Your task to perform on an android device: check the backup settings in the google photos Image 0: 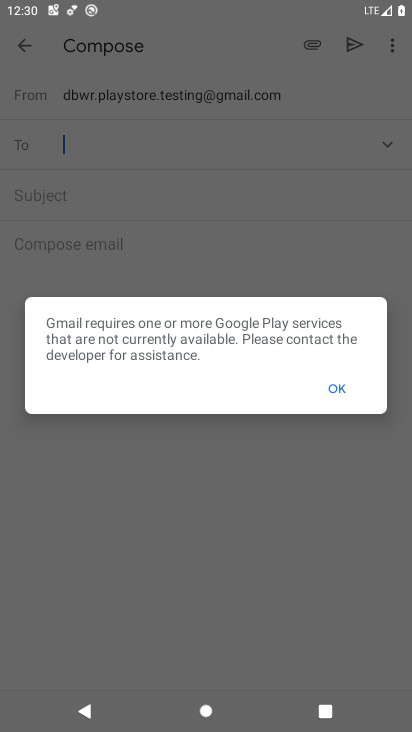
Step 0: press home button
Your task to perform on an android device: check the backup settings in the google photos Image 1: 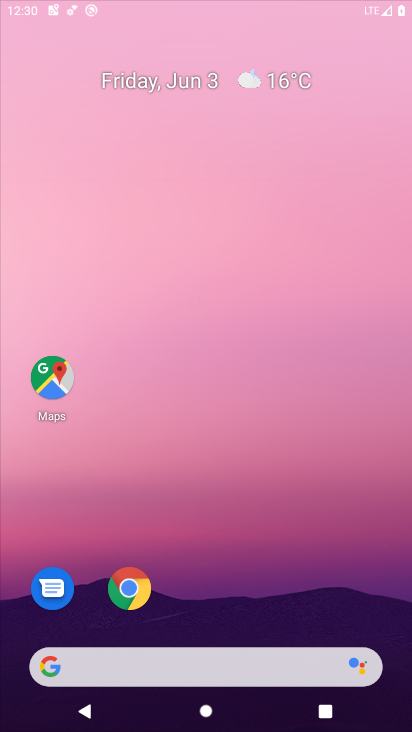
Step 1: drag from (253, 576) to (323, 65)
Your task to perform on an android device: check the backup settings in the google photos Image 2: 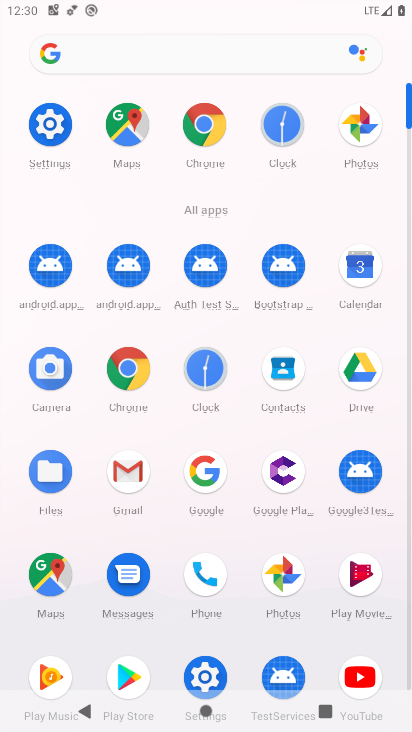
Step 2: drag from (42, 119) to (169, 18)
Your task to perform on an android device: check the backup settings in the google photos Image 3: 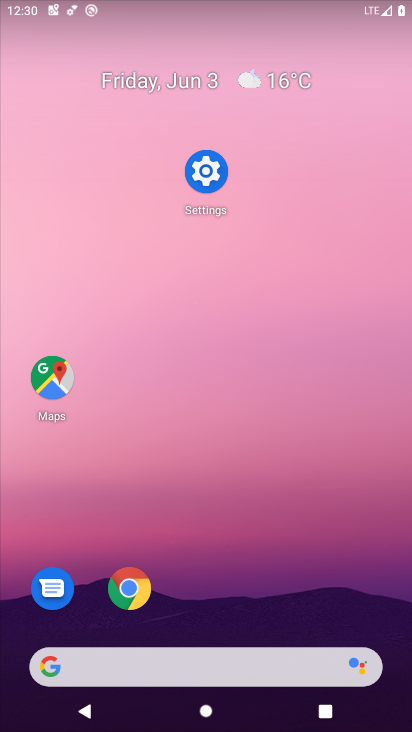
Step 3: drag from (242, 590) to (281, 30)
Your task to perform on an android device: check the backup settings in the google photos Image 4: 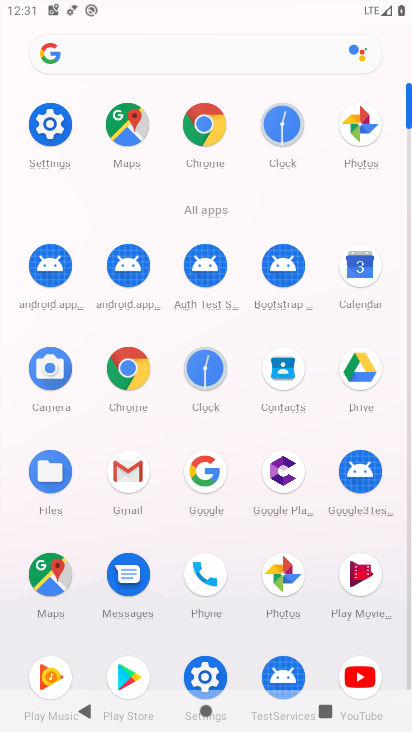
Step 4: drag from (291, 558) to (208, 477)
Your task to perform on an android device: check the backup settings in the google photos Image 5: 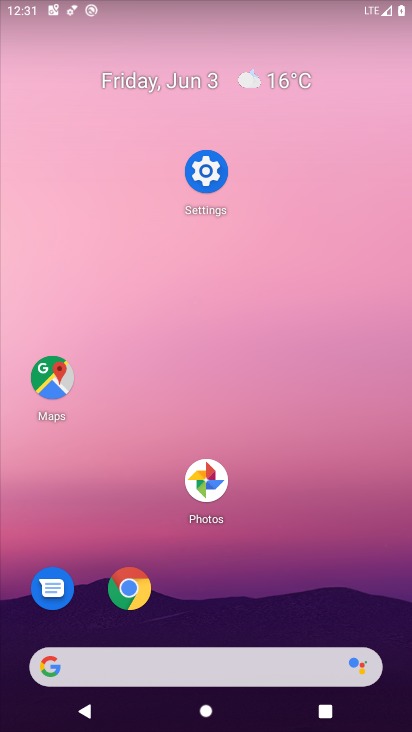
Step 5: click (205, 475)
Your task to perform on an android device: check the backup settings in the google photos Image 6: 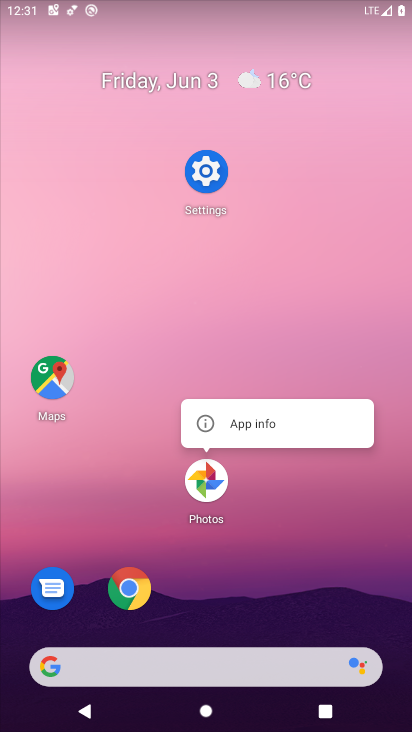
Step 6: click (279, 427)
Your task to perform on an android device: check the backup settings in the google photos Image 7: 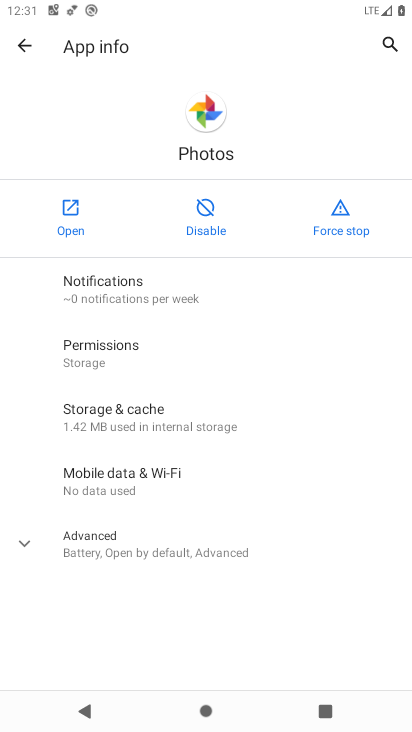
Step 7: click (96, 188)
Your task to perform on an android device: check the backup settings in the google photos Image 8: 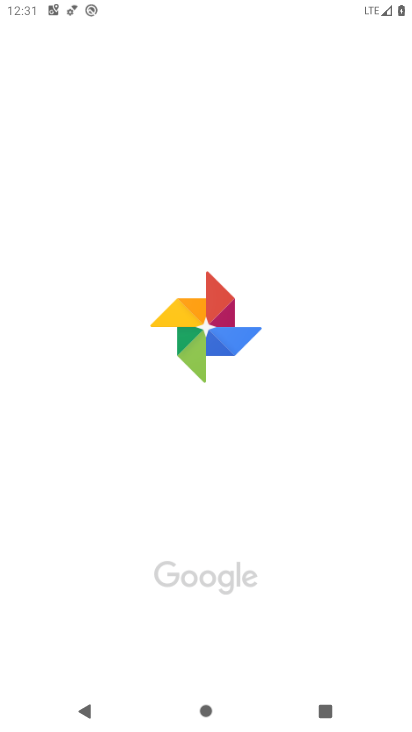
Step 8: drag from (273, 579) to (268, 296)
Your task to perform on an android device: check the backup settings in the google photos Image 9: 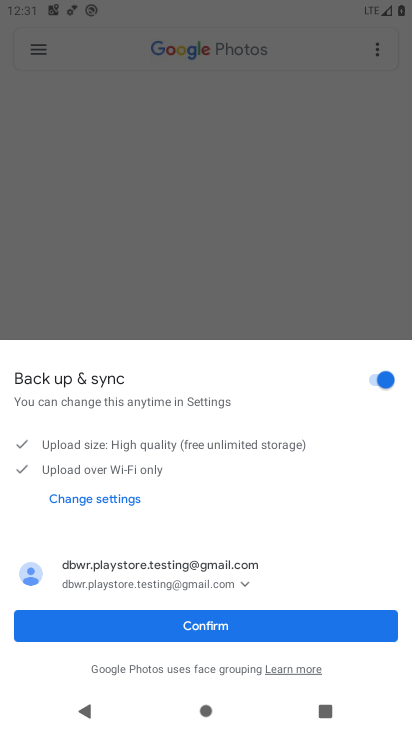
Step 9: click (173, 626)
Your task to perform on an android device: check the backup settings in the google photos Image 10: 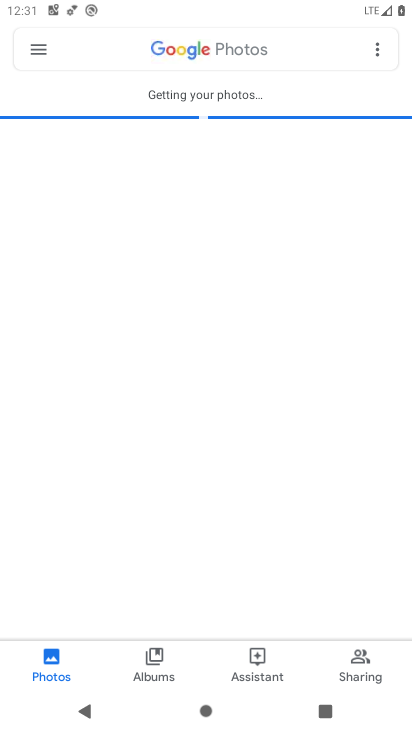
Step 10: click (36, 55)
Your task to perform on an android device: check the backup settings in the google photos Image 11: 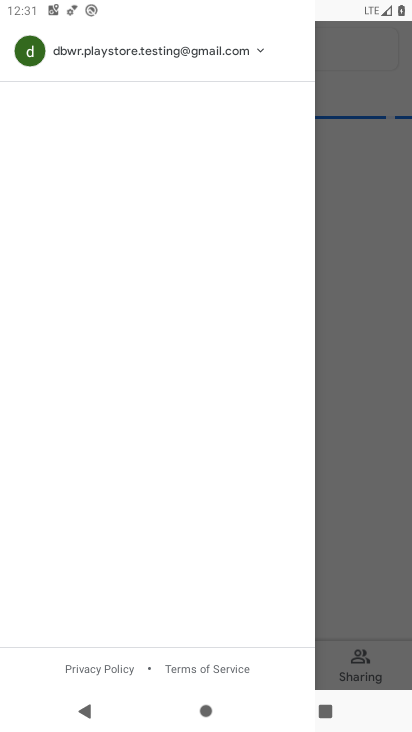
Step 11: drag from (119, 548) to (238, 130)
Your task to perform on an android device: check the backup settings in the google photos Image 12: 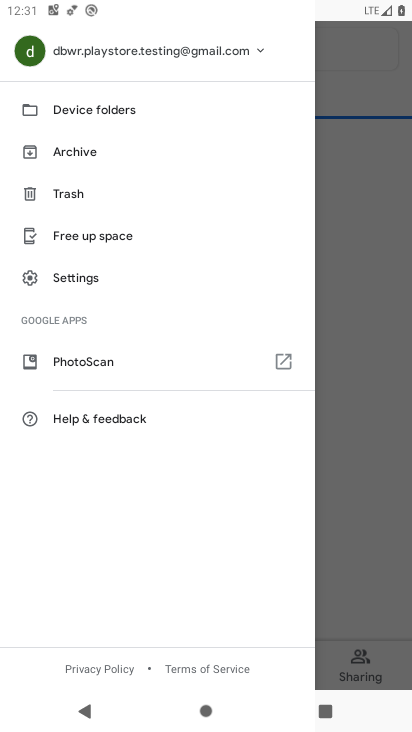
Step 12: click (113, 287)
Your task to perform on an android device: check the backup settings in the google photos Image 13: 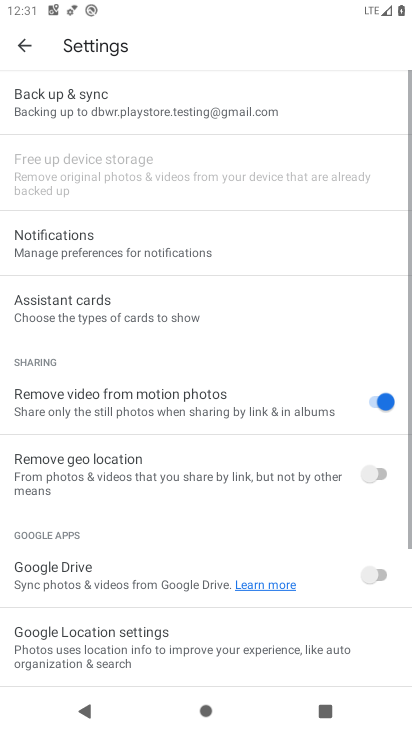
Step 13: click (208, 109)
Your task to perform on an android device: check the backup settings in the google photos Image 14: 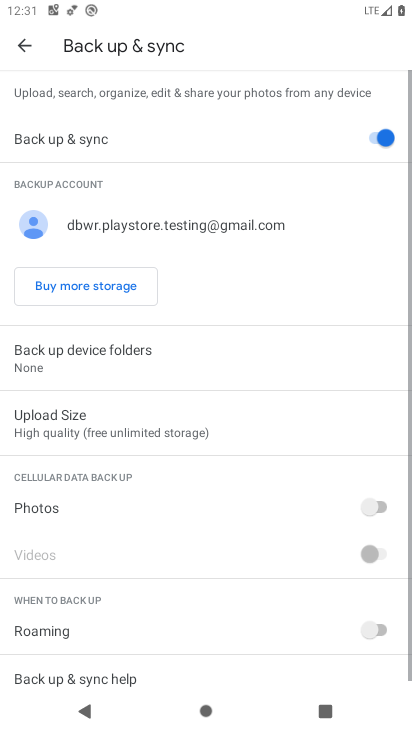
Step 14: task complete